Your task to perform on an android device: Open location settings Image 0: 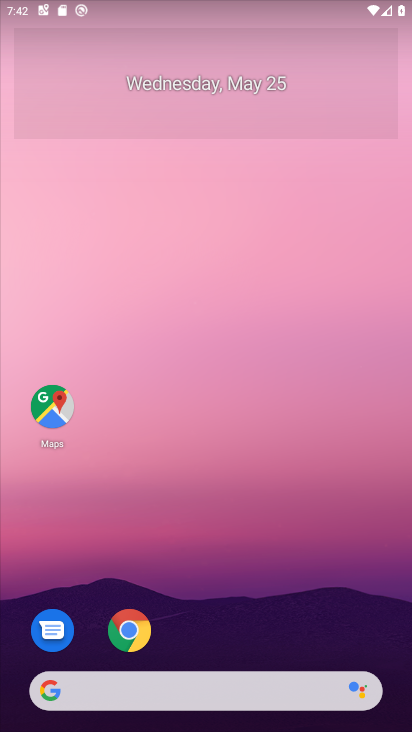
Step 0: drag from (189, 611) to (311, 143)
Your task to perform on an android device: Open location settings Image 1: 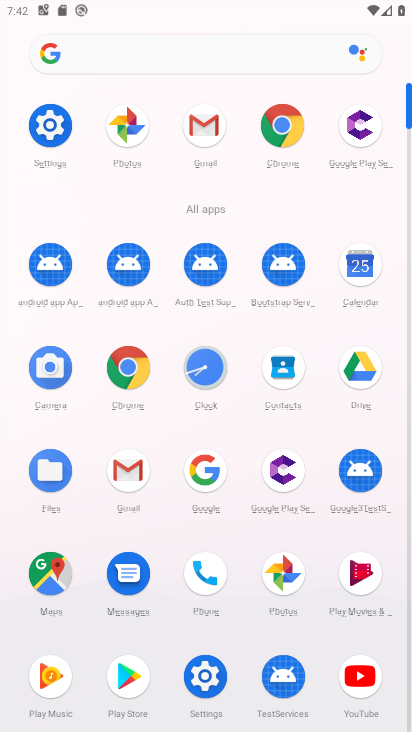
Step 1: click (46, 114)
Your task to perform on an android device: Open location settings Image 2: 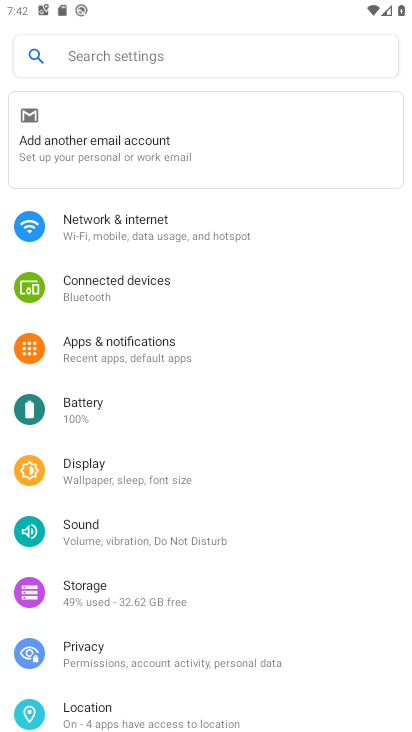
Step 2: click (108, 709)
Your task to perform on an android device: Open location settings Image 3: 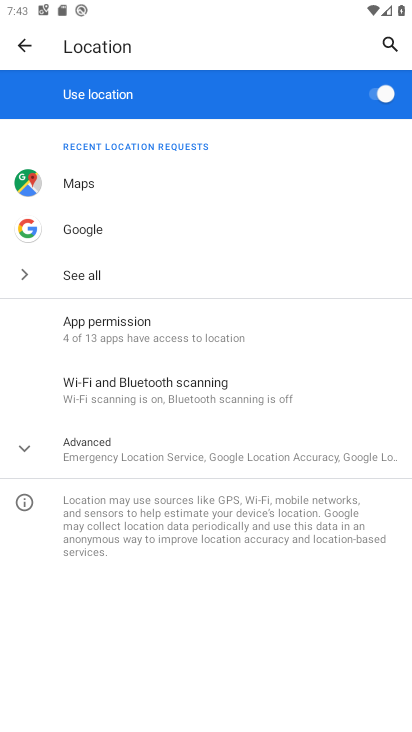
Step 3: task complete